Your task to perform on an android device: What is the news today? Image 0: 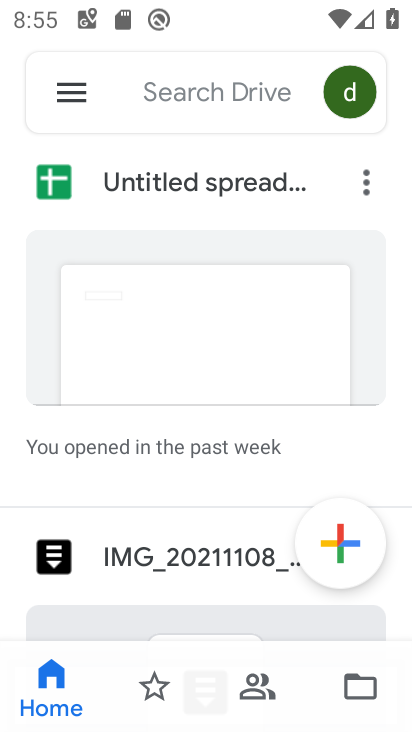
Step 0: press home button
Your task to perform on an android device: What is the news today? Image 1: 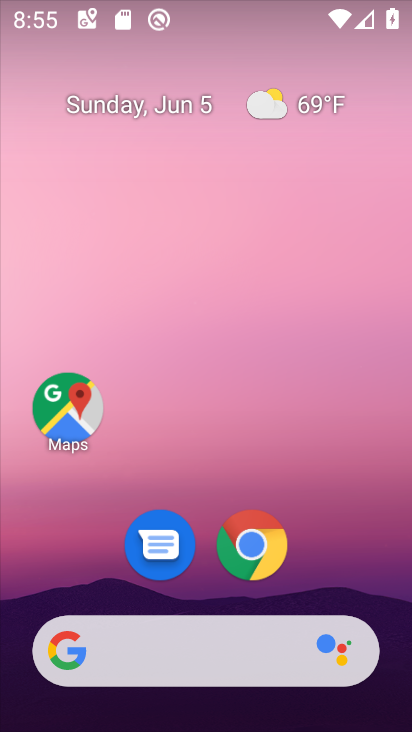
Step 1: task complete